Your task to perform on an android device: Open Reddit.com Image 0: 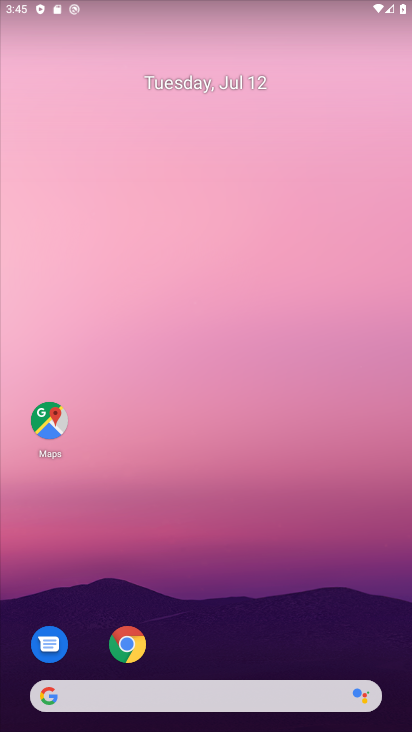
Step 0: drag from (285, 591) to (320, 108)
Your task to perform on an android device: Open Reddit.com Image 1: 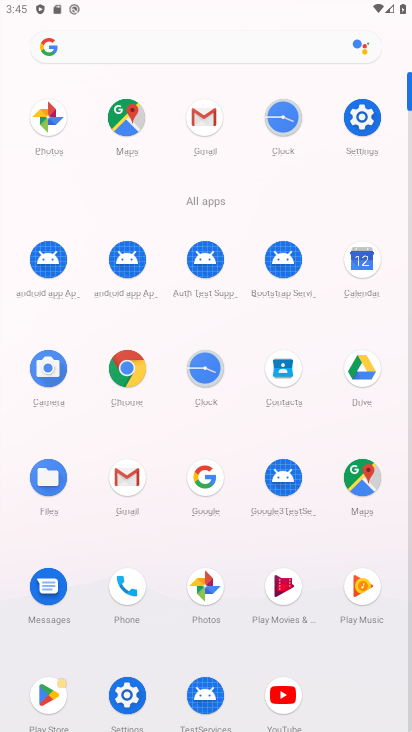
Step 1: click (117, 360)
Your task to perform on an android device: Open Reddit.com Image 2: 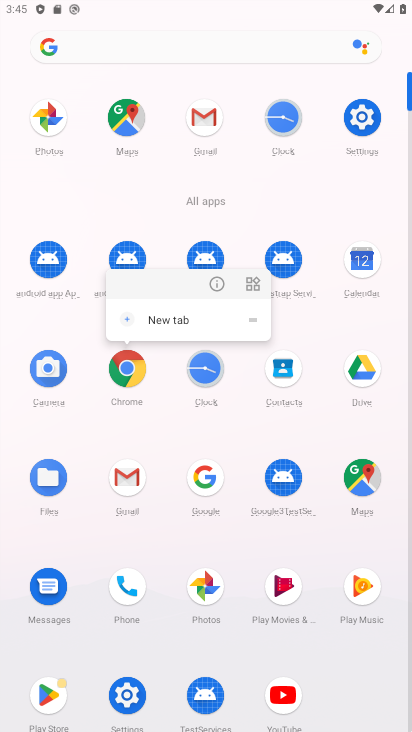
Step 2: click (117, 360)
Your task to perform on an android device: Open Reddit.com Image 3: 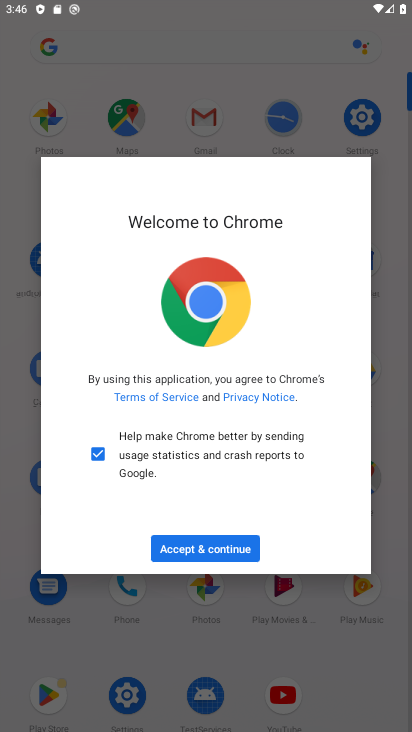
Step 3: click (198, 556)
Your task to perform on an android device: Open Reddit.com Image 4: 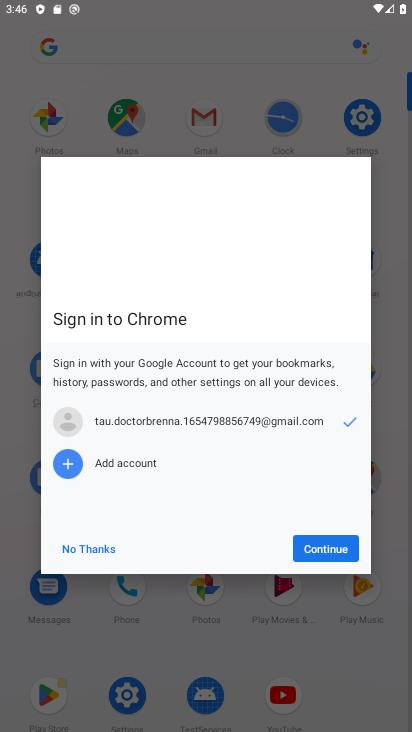
Step 4: click (89, 543)
Your task to perform on an android device: Open Reddit.com Image 5: 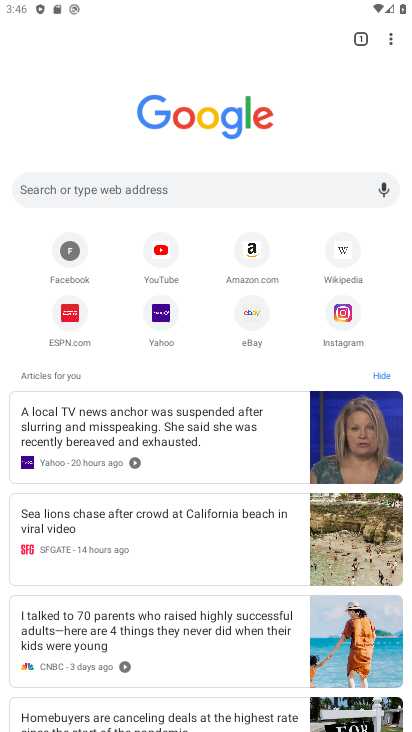
Step 5: click (101, 198)
Your task to perform on an android device: Open Reddit.com Image 6: 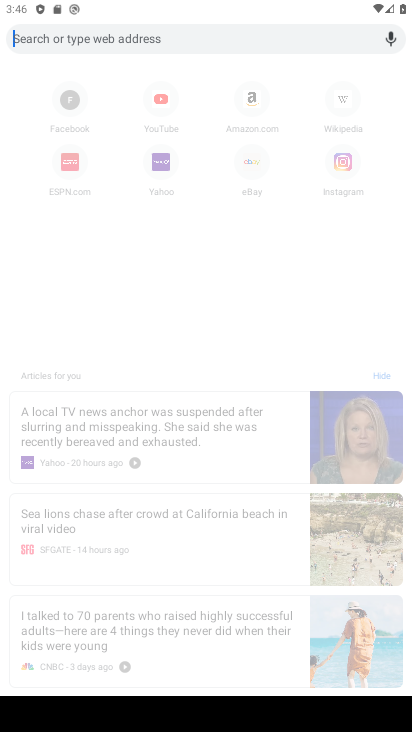
Step 6: press enter
Your task to perform on an android device: Open Reddit.com Image 7: 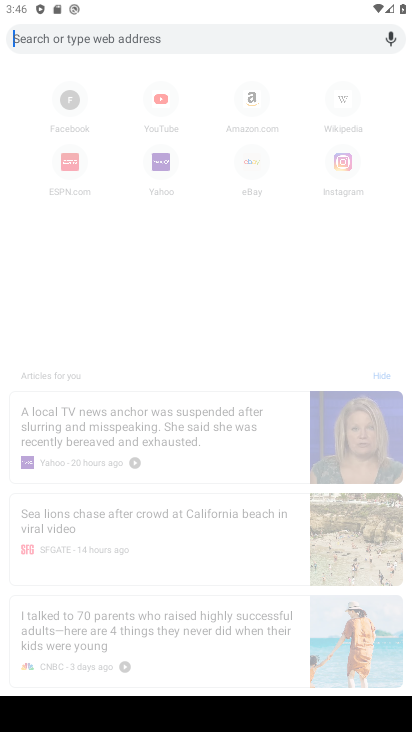
Step 7: type " Reddit.com"
Your task to perform on an android device: Open Reddit.com Image 8: 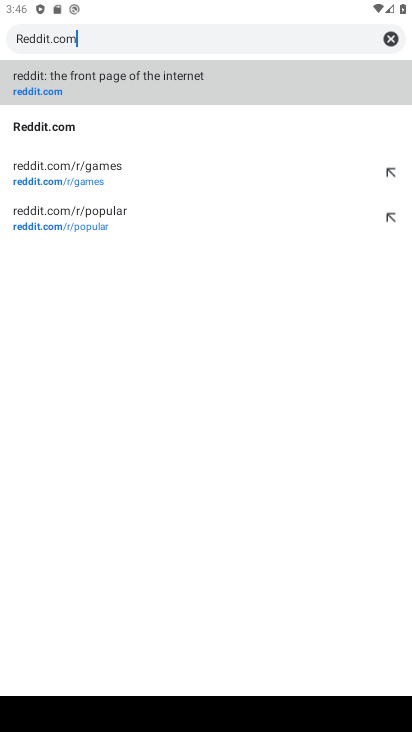
Step 8: click (57, 116)
Your task to perform on an android device: Open Reddit.com Image 9: 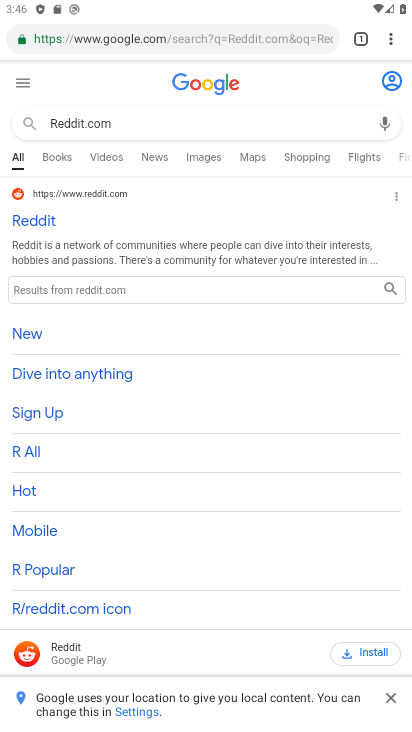
Step 9: click (26, 211)
Your task to perform on an android device: Open Reddit.com Image 10: 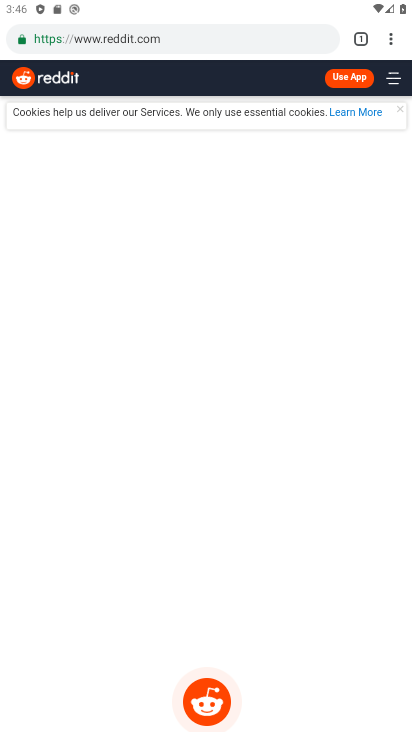
Step 10: task complete